Your task to perform on an android device: Open settings Image 0: 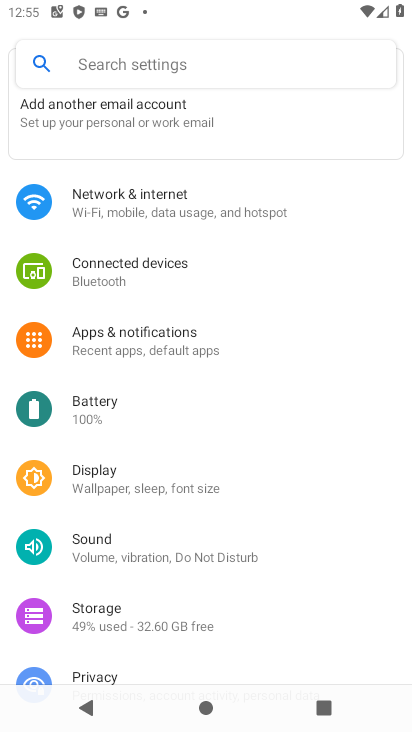
Step 0: task complete